Your task to perform on an android device: Search for seafood restaurants on Google Maps Image 0: 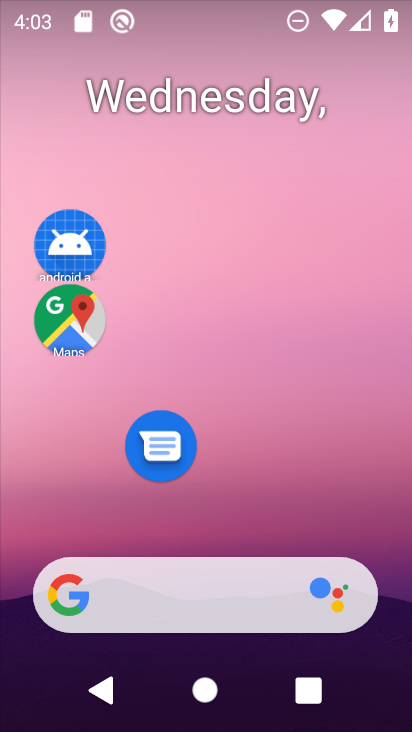
Step 0: drag from (344, 553) to (324, 157)
Your task to perform on an android device: Search for seafood restaurants on Google Maps Image 1: 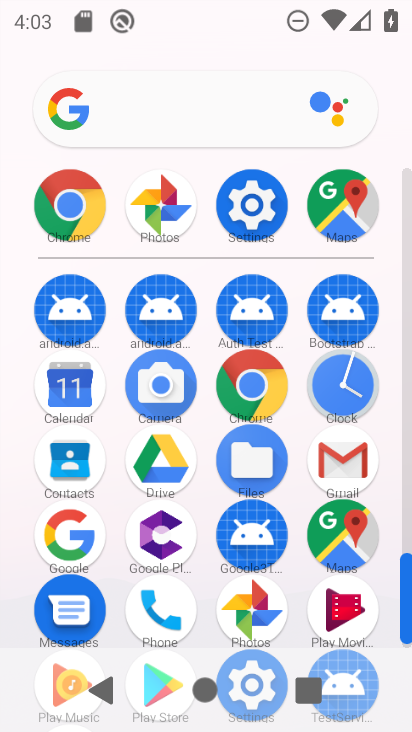
Step 1: click (330, 541)
Your task to perform on an android device: Search for seafood restaurants on Google Maps Image 2: 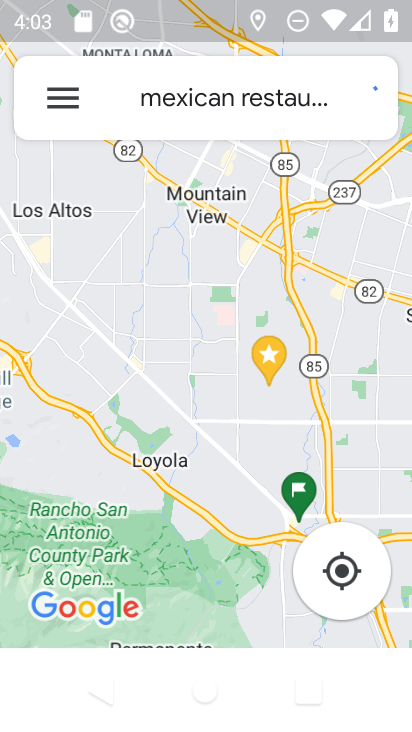
Step 2: click (266, 122)
Your task to perform on an android device: Search for seafood restaurants on Google Maps Image 3: 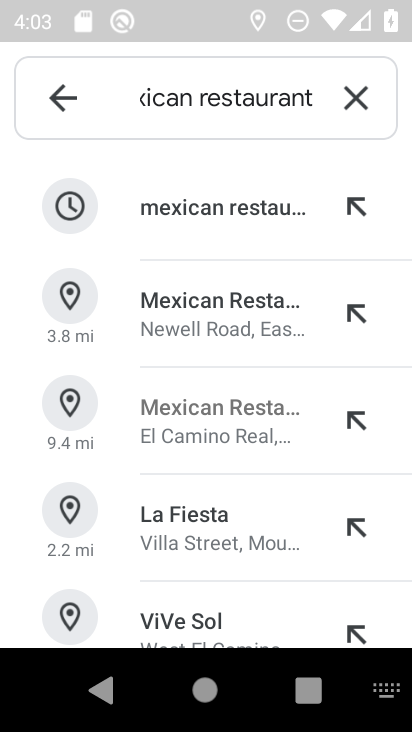
Step 3: click (366, 106)
Your task to perform on an android device: Search for seafood restaurants on Google Maps Image 4: 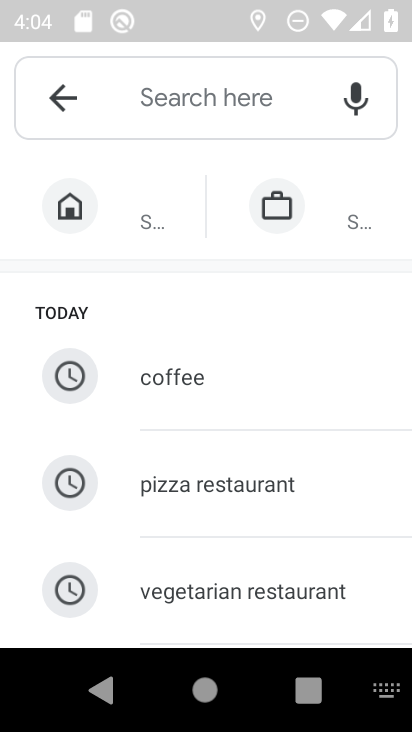
Step 4: type "seafood"
Your task to perform on an android device: Search for seafood restaurants on Google Maps Image 5: 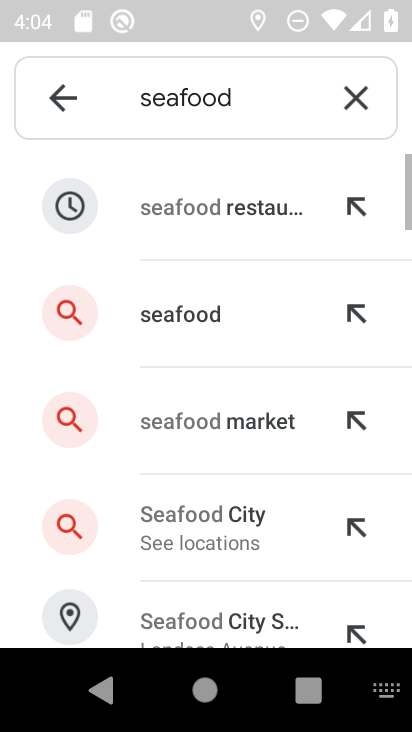
Step 5: click (255, 237)
Your task to perform on an android device: Search for seafood restaurants on Google Maps Image 6: 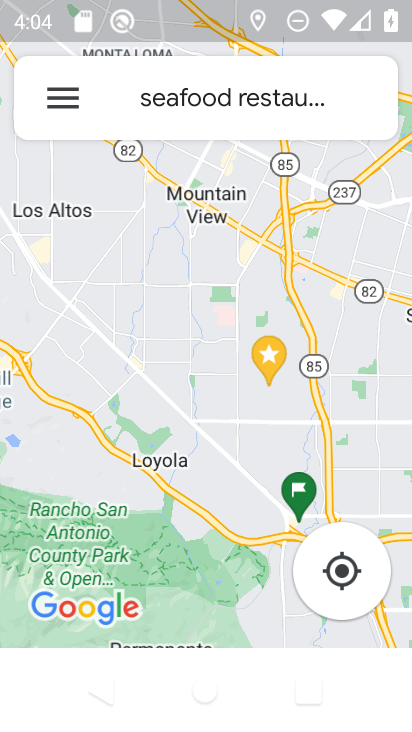
Step 6: task complete